Your task to perform on an android device: Go to Reddit.com Image 0: 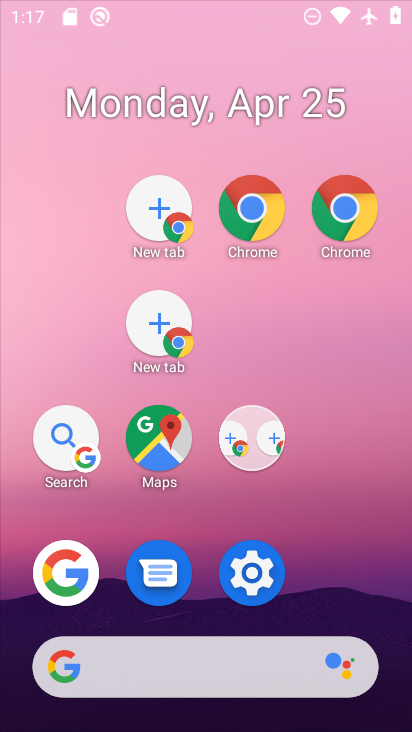
Step 0: press home button
Your task to perform on an android device: Go to Reddit.com Image 1: 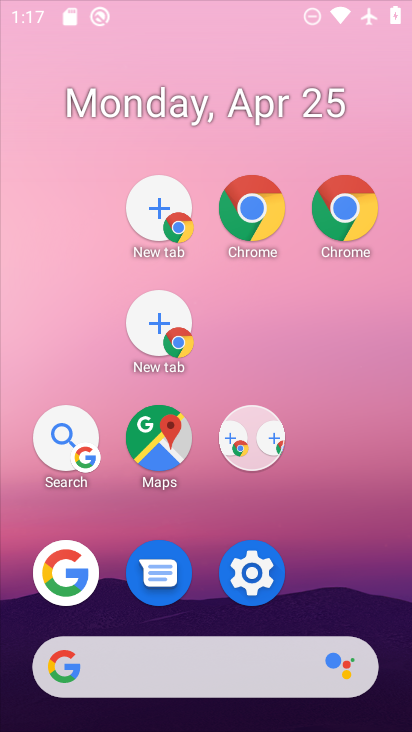
Step 1: click (202, 170)
Your task to perform on an android device: Go to Reddit.com Image 2: 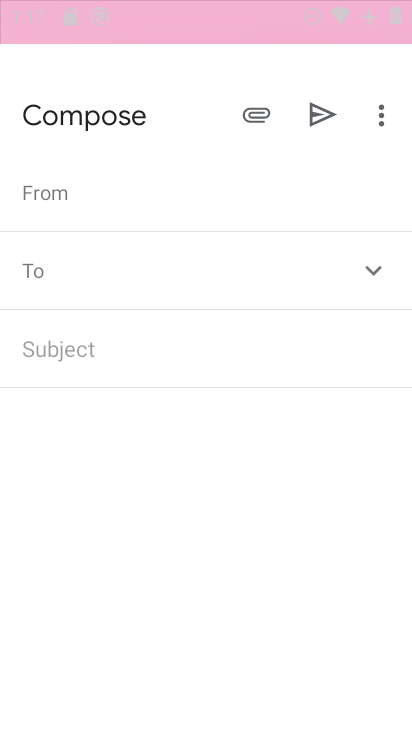
Step 2: click (225, 228)
Your task to perform on an android device: Go to Reddit.com Image 3: 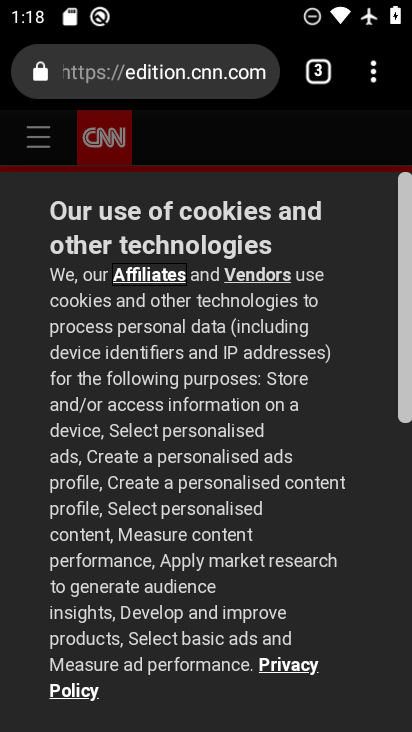
Step 3: press home button
Your task to perform on an android device: Go to Reddit.com Image 4: 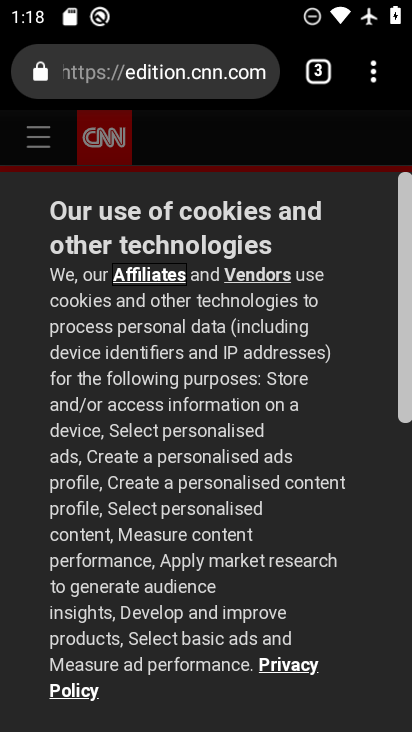
Step 4: press home button
Your task to perform on an android device: Go to Reddit.com Image 5: 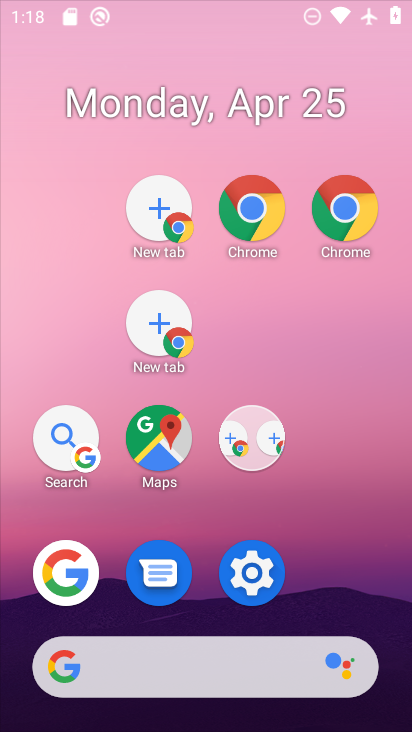
Step 5: press home button
Your task to perform on an android device: Go to Reddit.com Image 6: 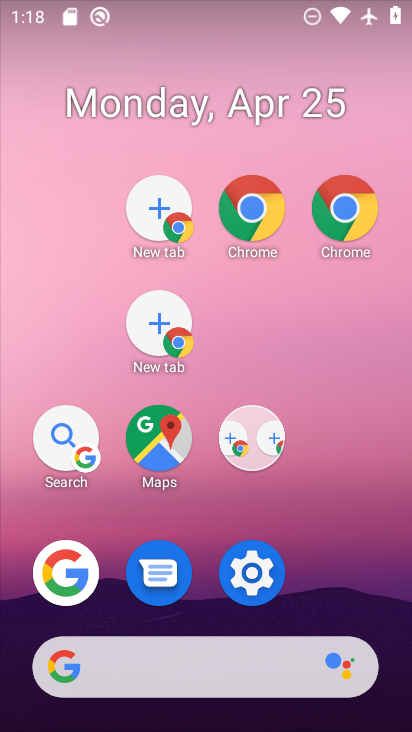
Step 6: drag from (166, 609) to (47, 135)
Your task to perform on an android device: Go to Reddit.com Image 7: 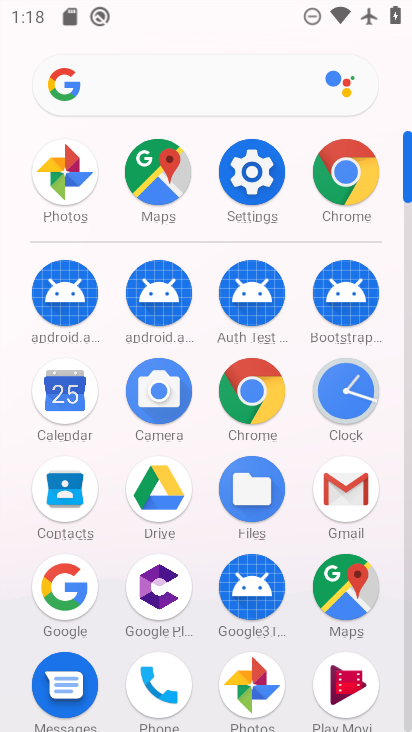
Step 7: click (361, 176)
Your task to perform on an android device: Go to Reddit.com Image 8: 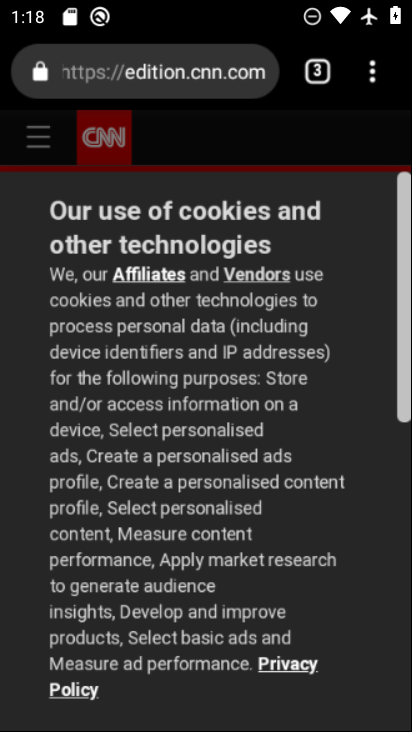
Step 8: click (361, 176)
Your task to perform on an android device: Go to Reddit.com Image 9: 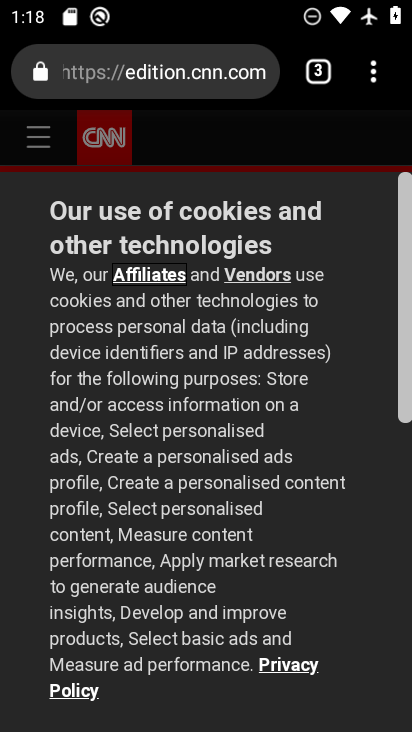
Step 9: drag from (368, 62) to (229, 149)
Your task to perform on an android device: Go to Reddit.com Image 10: 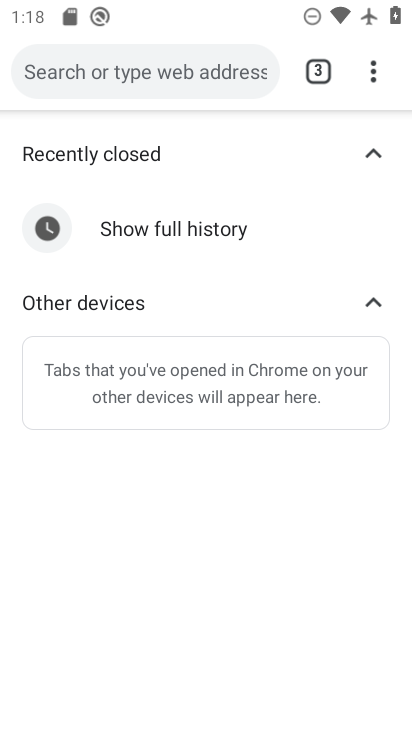
Step 10: drag from (272, 200) to (223, 588)
Your task to perform on an android device: Go to Reddit.com Image 11: 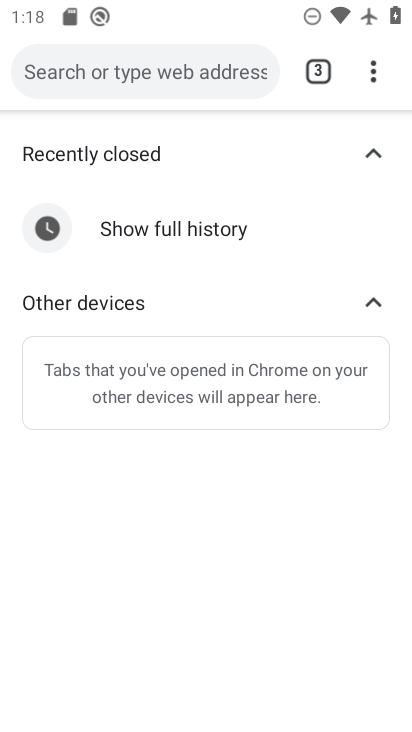
Step 11: press back button
Your task to perform on an android device: Go to Reddit.com Image 12: 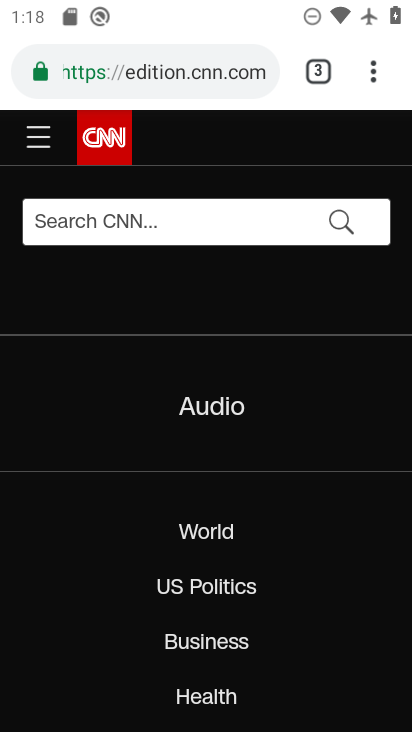
Step 12: drag from (366, 69) to (118, 134)
Your task to perform on an android device: Go to Reddit.com Image 13: 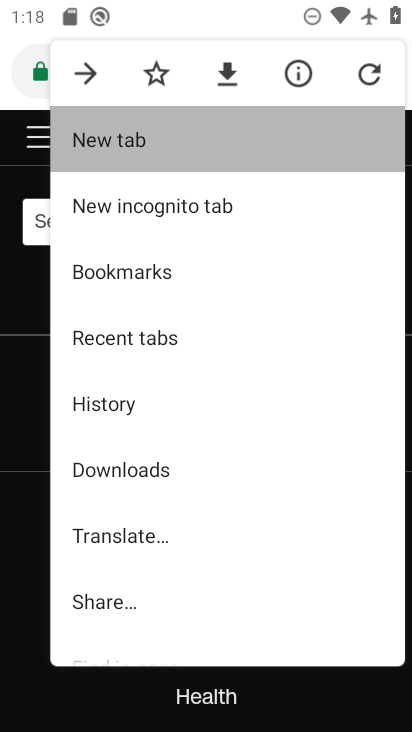
Step 13: click (118, 134)
Your task to perform on an android device: Go to Reddit.com Image 14: 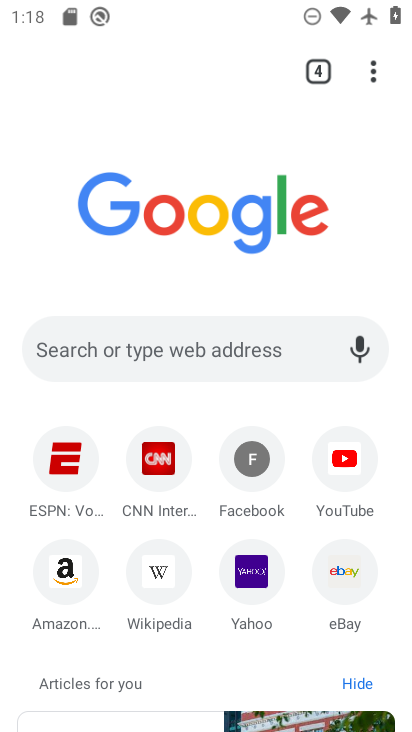
Step 14: click (89, 353)
Your task to perform on an android device: Go to Reddit.com Image 15: 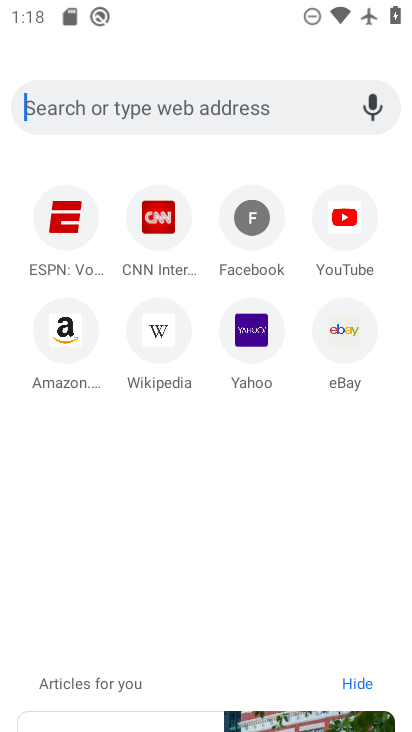
Step 15: click (89, 353)
Your task to perform on an android device: Go to Reddit.com Image 16: 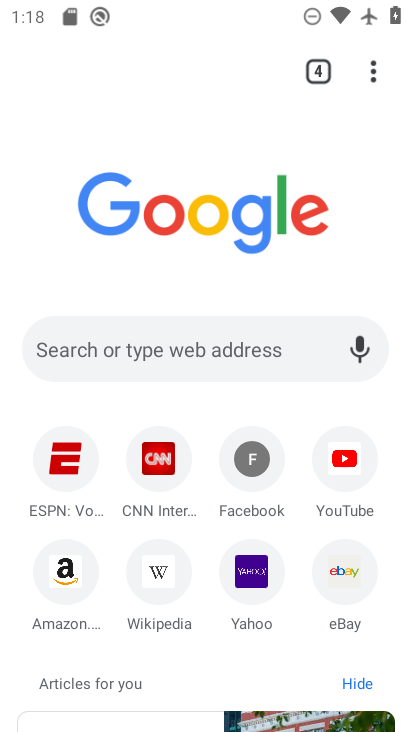
Step 16: click (83, 348)
Your task to perform on an android device: Go to Reddit.com Image 17: 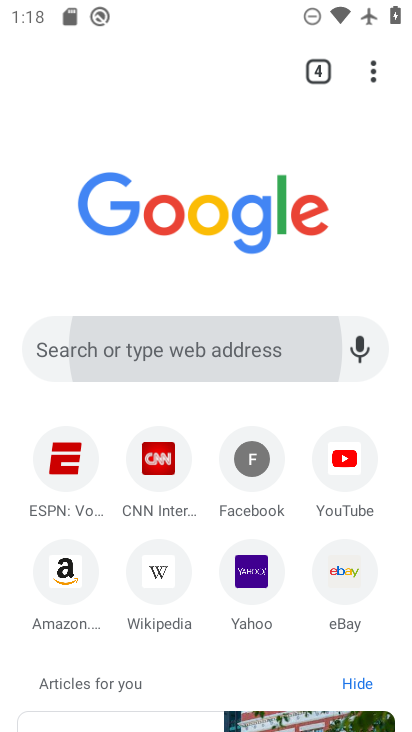
Step 17: click (83, 348)
Your task to perform on an android device: Go to Reddit.com Image 18: 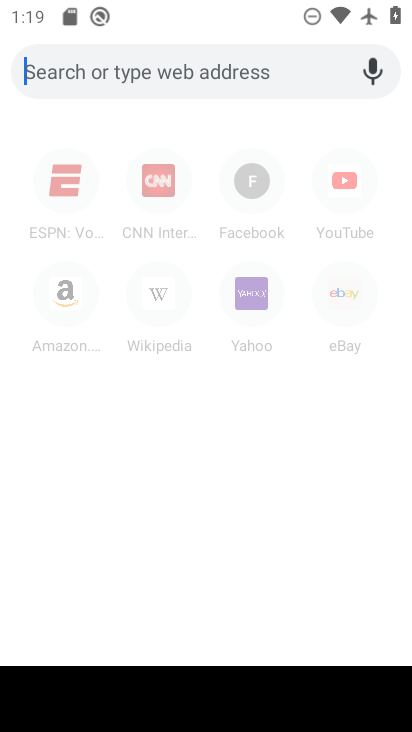
Step 18: type "www. reddit.com"
Your task to perform on an android device: Go to Reddit.com Image 19: 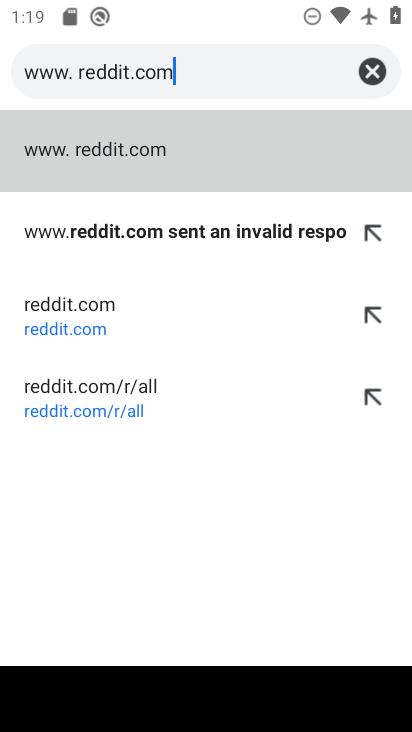
Step 19: click (43, 325)
Your task to perform on an android device: Go to Reddit.com Image 20: 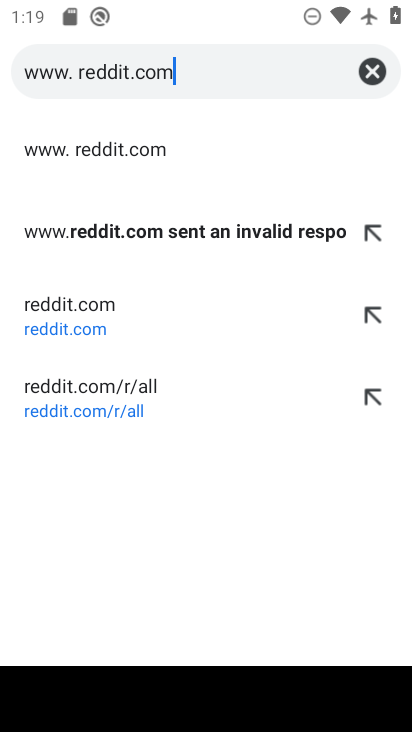
Step 20: click (43, 325)
Your task to perform on an android device: Go to Reddit.com Image 21: 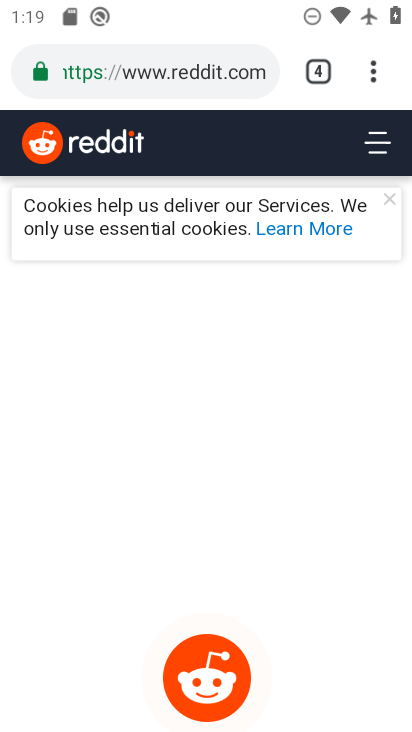
Step 21: task complete